Your task to perform on an android device: Do I have any events tomorrow? Image 0: 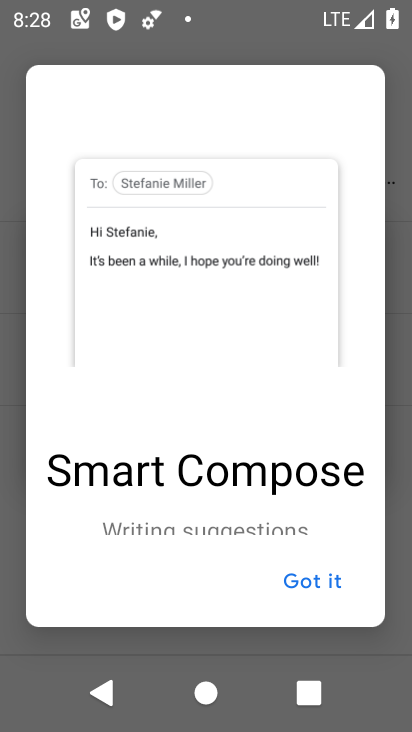
Step 0: press home button
Your task to perform on an android device: Do I have any events tomorrow? Image 1: 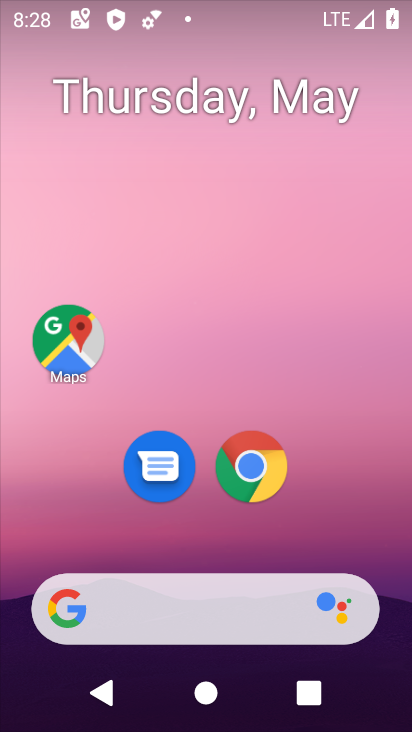
Step 1: drag from (365, 572) to (339, 0)
Your task to perform on an android device: Do I have any events tomorrow? Image 2: 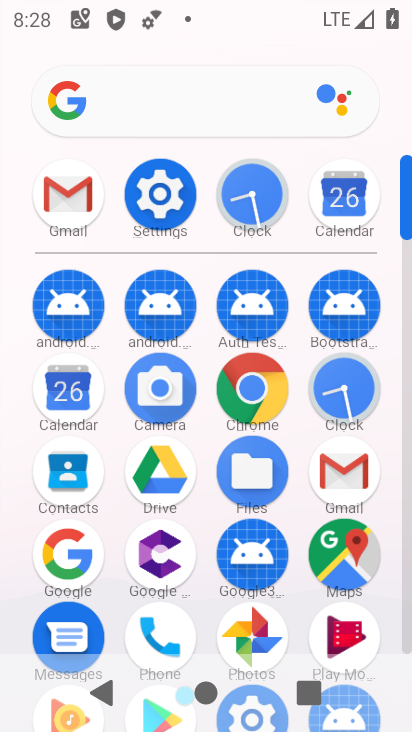
Step 2: click (348, 203)
Your task to perform on an android device: Do I have any events tomorrow? Image 3: 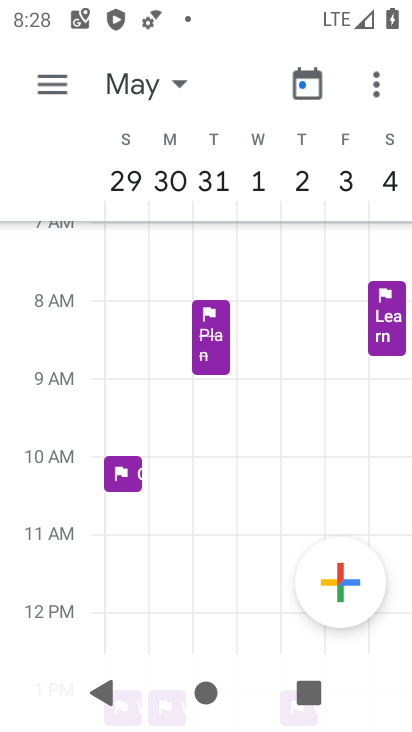
Step 3: click (54, 92)
Your task to perform on an android device: Do I have any events tomorrow? Image 4: 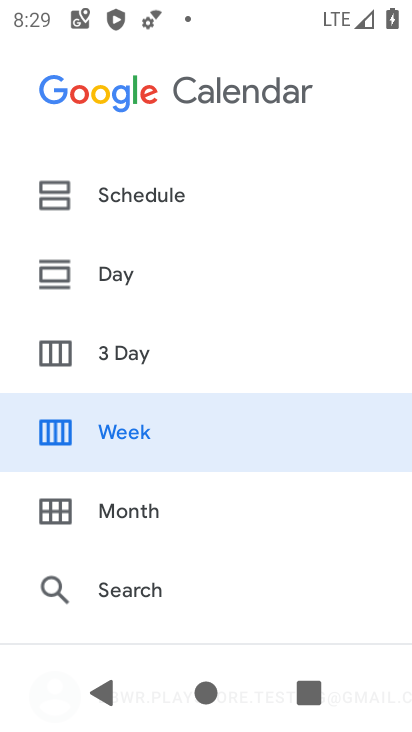
Step 4: click (63, 194)
Your task to perform on an android device: Do I have any events tomorrow? Image 5: 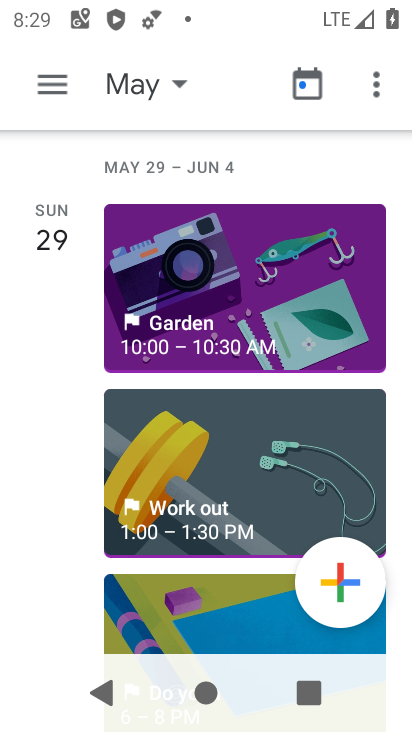
Step 5: drag from (135, 235) to (121, 616)
Your task to perform on an android device: Do I have any events tomorrow? Image 6: 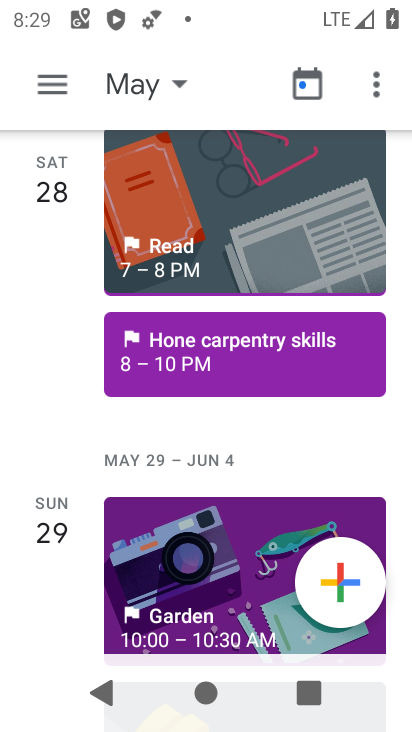
Step 6: drag from (211, 219) to (188, 603)
Your task to perform on an android device: Do I have any events tomorrow? Image 7: 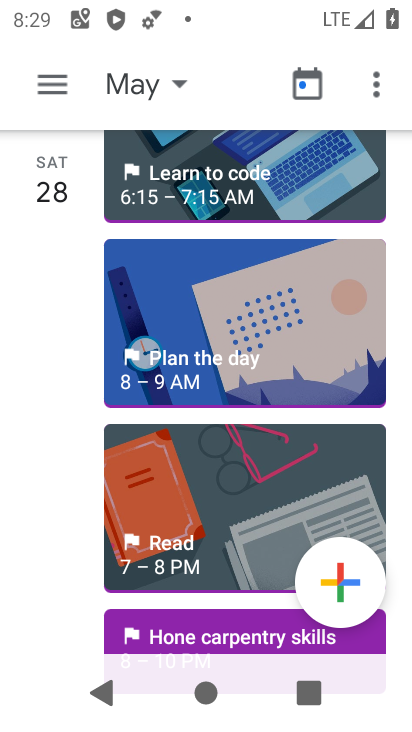
Step 7: drag from (167, 663) to (144, 727)
Your task to perform on an android device: Do I have any events tomorrow? Image 8: 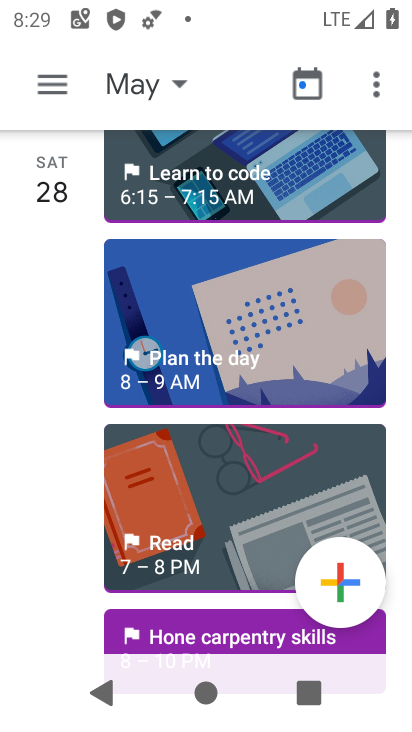
Step 8: drag from (204, 227) to (193, 565)
Your task to perform on an android device: Do I have any events tomorrow? Image 9: 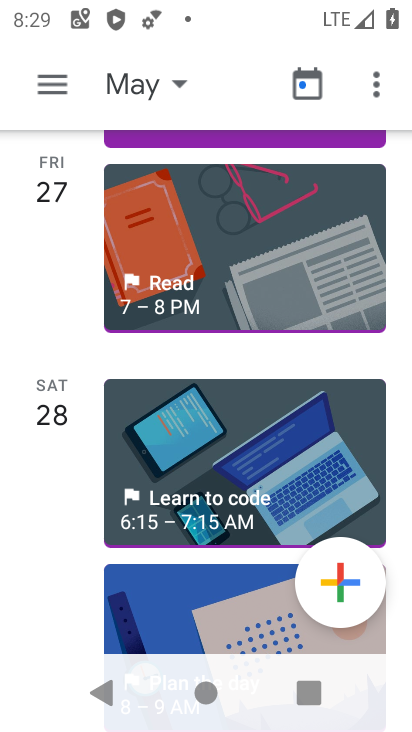
Step 9: drag from (191, 253) to (166, 558)
Your task to perform on an android device: Do I have any events tomorrow? Image 10: 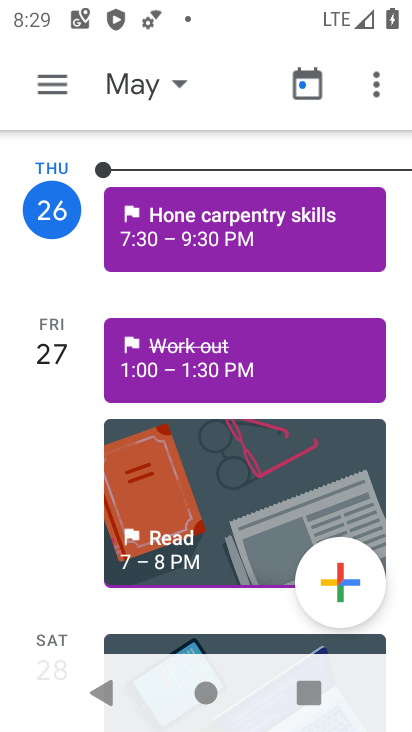
Step 10: click (185, 382)
Your task to perform on an android device: Do I have any events tomorrow? Image 11: 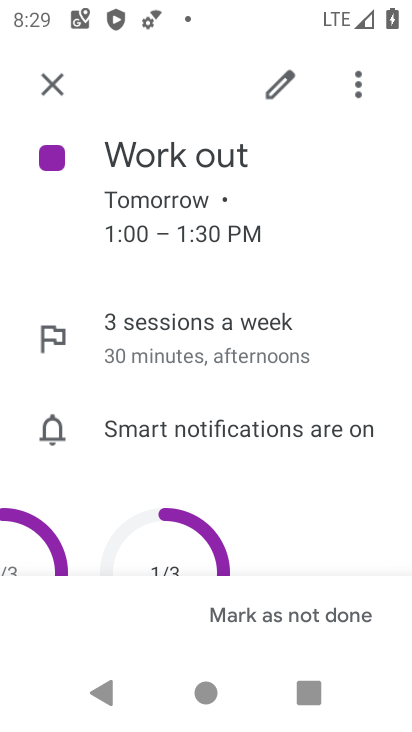
Step 11: task complete